Your task to perform on an android device: turn off notifications settings in the gmail app Image 0: 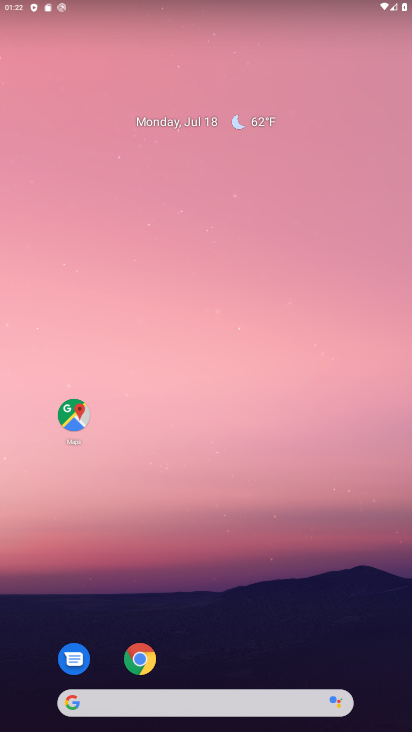
Step 0: drag from (302, 607) to (281, 140)
Your task to perform on an android device: turn off notifications settings in the gmail app Image 1: 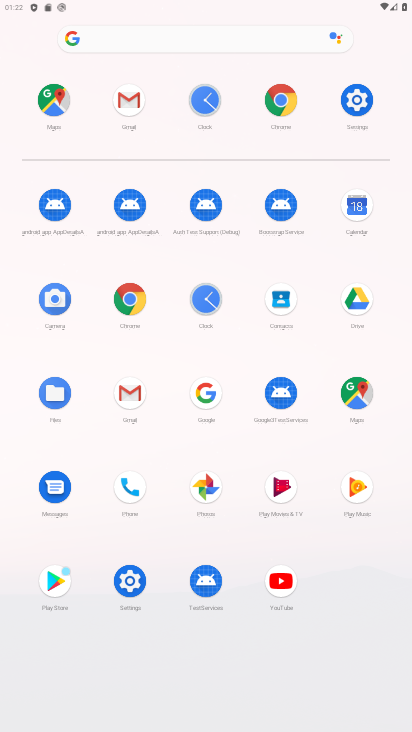
Step 1: click (130, 398)
Your task to perform on an android device: turn off notifications settings in the gmail app Image 2: 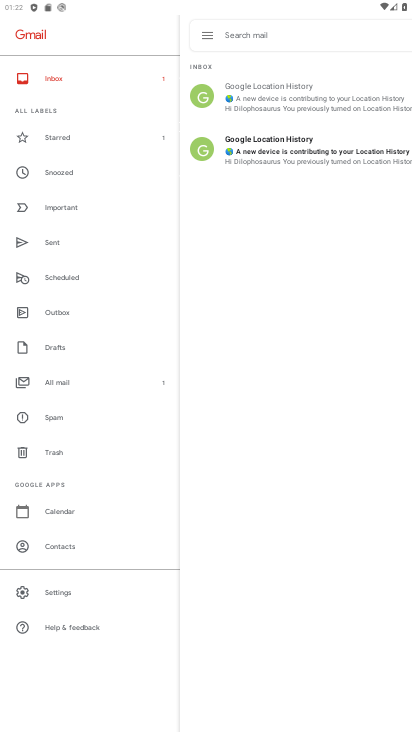
Step 2: click (59, 585)
Your task to perform on an android device: turn off notifications settings in the gmail app Image 3: 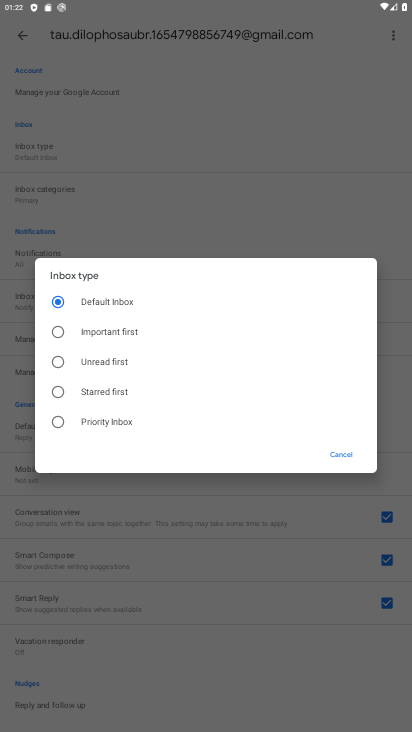
Step 3: click (337, 455)
Your task to perform on an android device: turn off notifications settings in the gmail app Image 4: 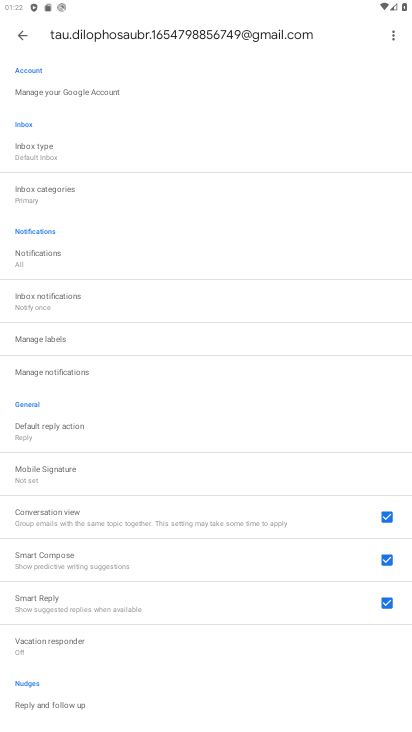
Step 4: click (62, 378)
Your task to perform on an android device: turn off notifications settings in the gmail app Image 5: 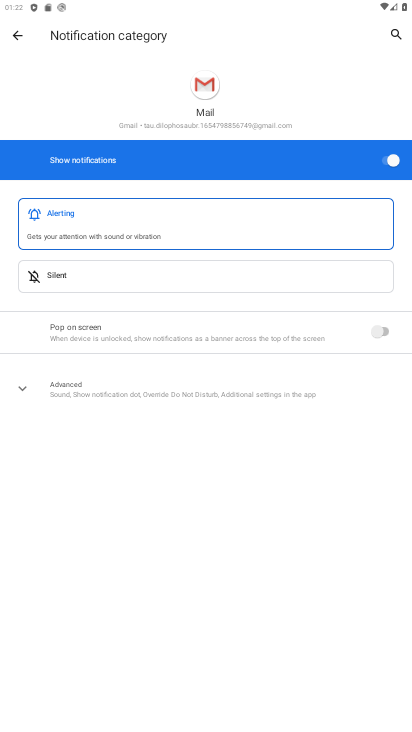
Step 5: click (381, 153)
Your task to perform on an android device: turn off notifications settings in the gmail app Image 6: 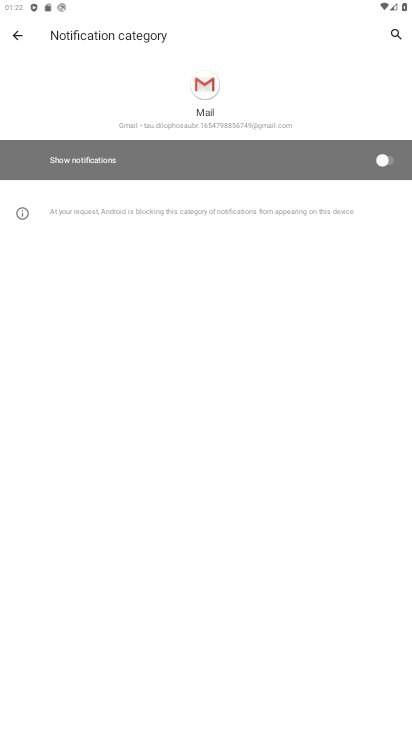
Step 6: task complete